Your task to perform on an android device: Show me recent news Image 0: 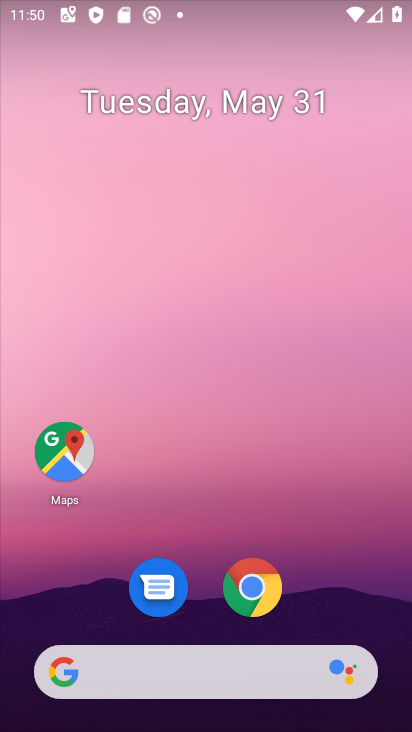
Step 0: drag from (19, 266) to (147, 279)
Your task to perform on an android device: Show me recent news Image 1: 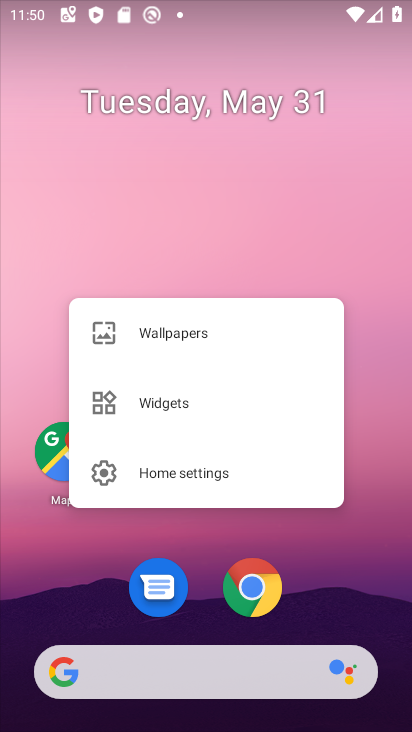
Step 1: task complete